Your task to perform on an android device: turn off improve location accuracy Image 0: 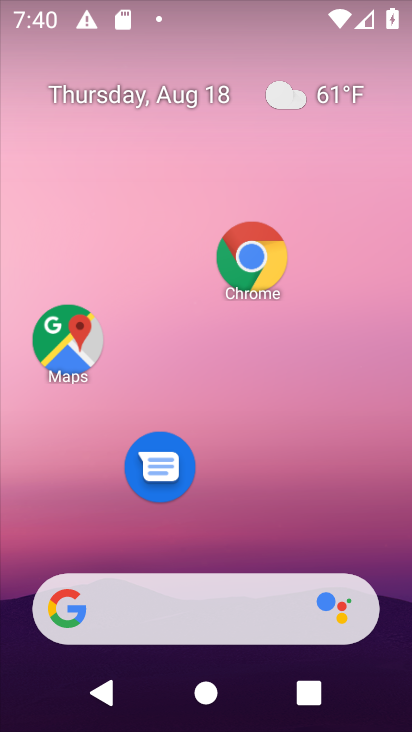
Step 0: task complete